Your task to perform on an android device: stop showing notifications on the lock screen Image 0: 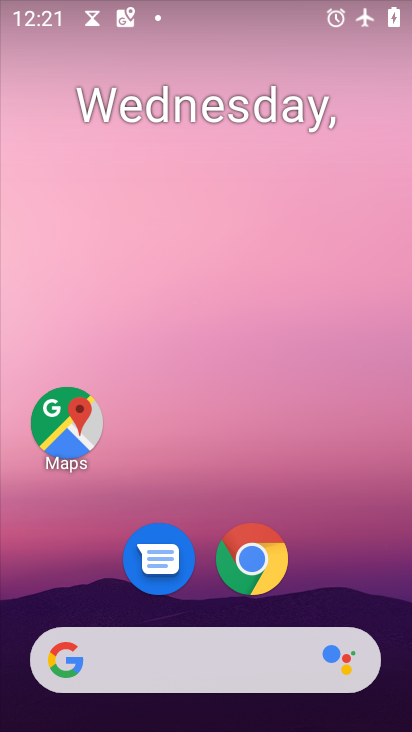
Step 0: drag from (378, 583) to (408, 134)
Your task to perform on an android device: stop showing notifications on the lock screen Image 1: 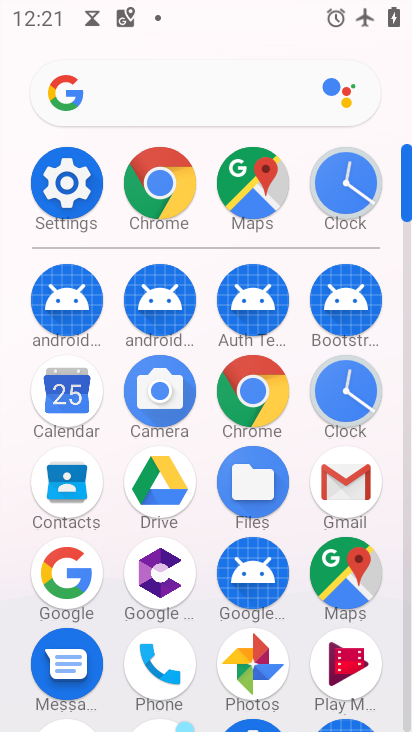
Step 1: click (83, 215)
Your task to perform on an android device: stop showing notifications on the lock screen Image 2: 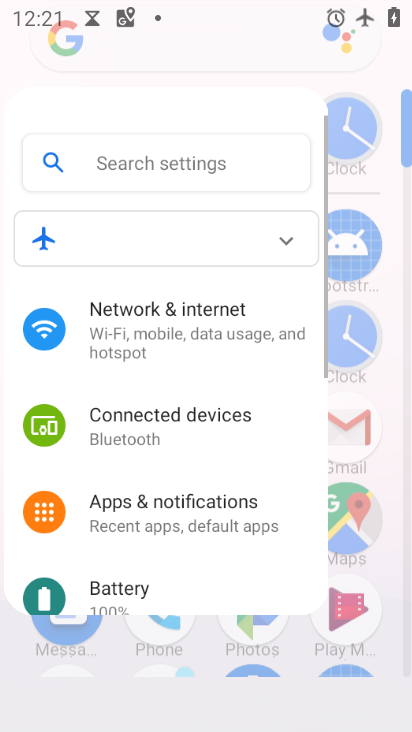
Step 2: click (75, 203)
Your task to perform on an android device: stop showing notifications on the lock screen Image 3: 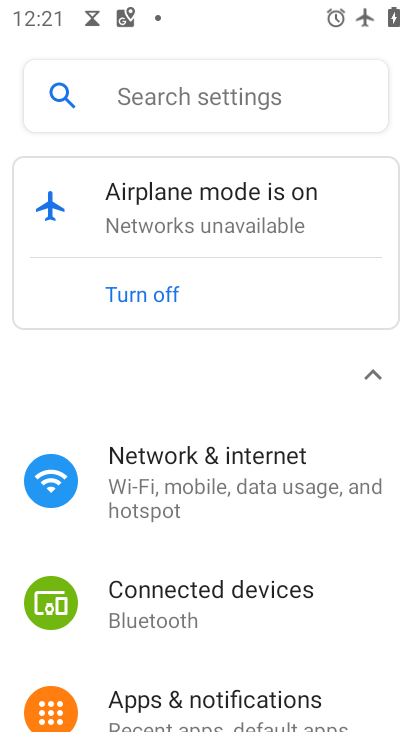
Step 3: drag from (304, 650) to (335, 306)
Your task to perform on an android device: stop showing notifications on the lock screen Image 4: 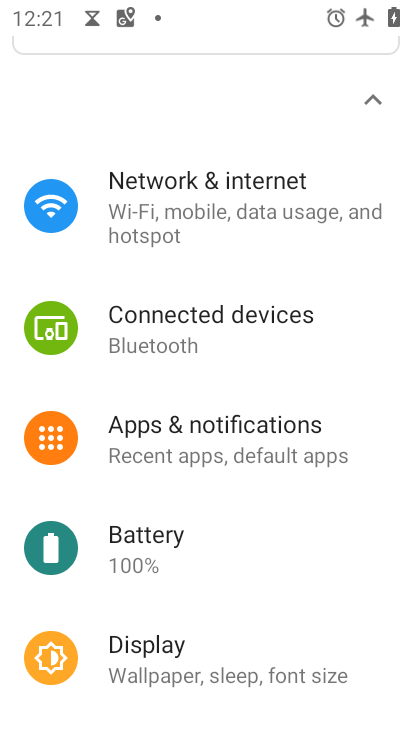
Step 4: click (241, 450)
Your task to perform on an android device: stop showing notifications on the lock screen Image 5: 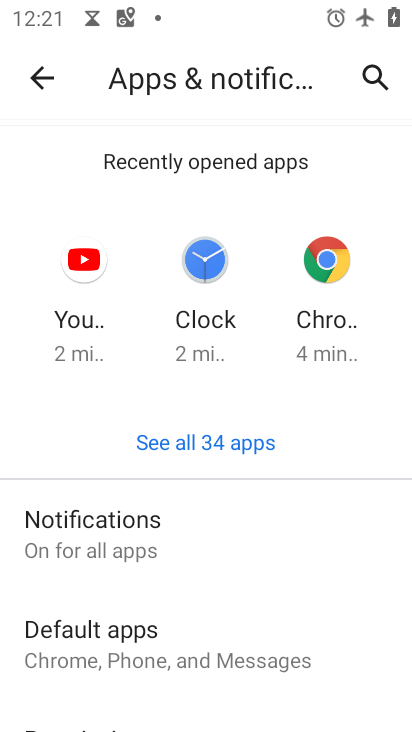
Step 5: click (113, 544)
Your task to perform on an android device: stop showing notifications on the lock screen Image 6: 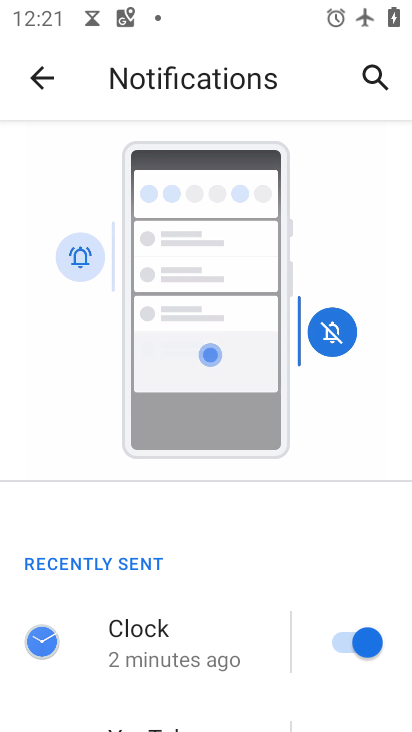
Step 6: drag from (238, 537) to (206, 103)
Your task to perform on an android device: stop showing notifications on the lock screen Image 7: 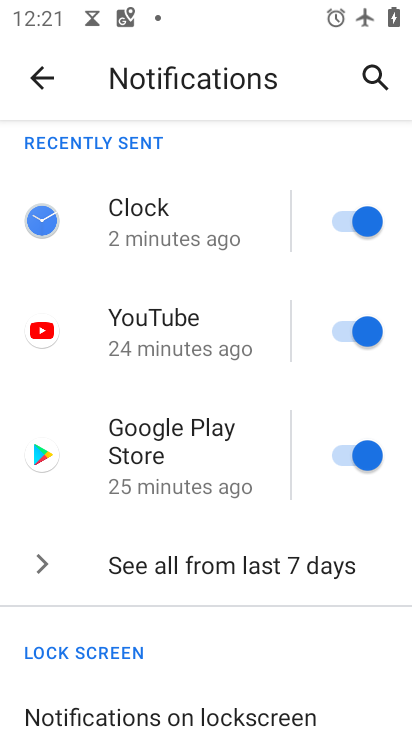
Step 7: drag from (270, 628) to (283, 148)
Your task to perform on an android device: stop showing notifications on the lock screen Image 8: 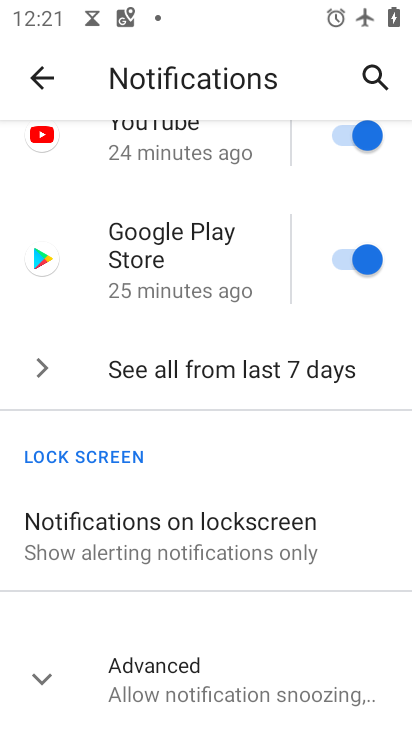
Step 8: click (176, 520)
Your task to perform on an android device: stop showing notifications on the lock screen Image 9: 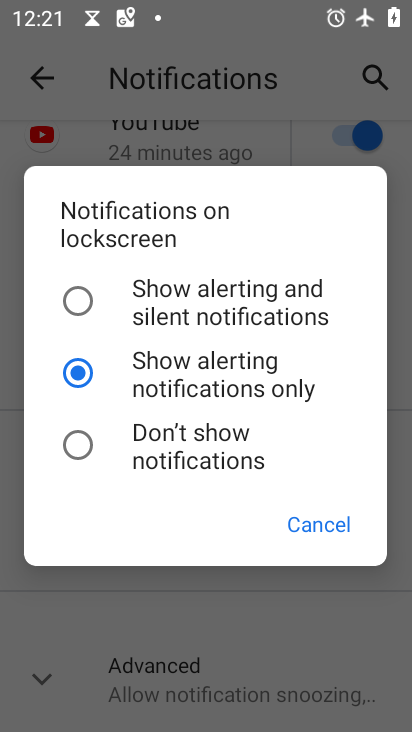
Step 9: click (79, 452)
Your task to perform on an android device: stop showing notifications on the lock screen Image 10: 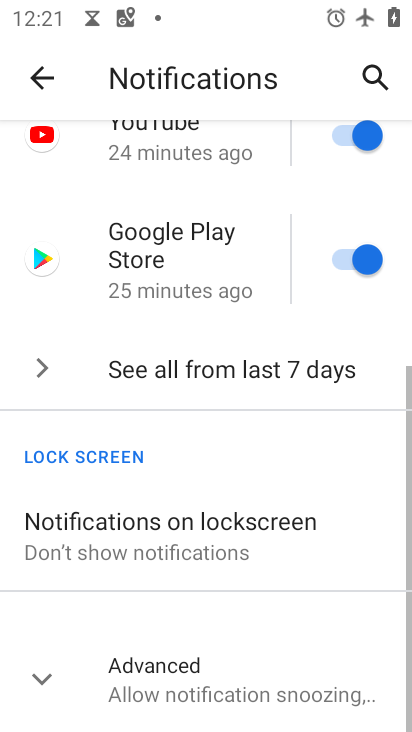
Step 10: task complete